Your task to perform on an android device: Is it going to rain this weekend? Image 0: 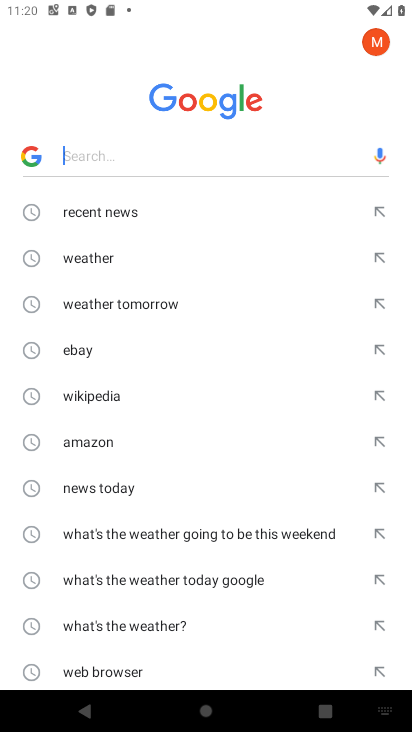
Step 0: press home button
Your task to perform on an android device: Is it going to rain this weekend? Image 1: 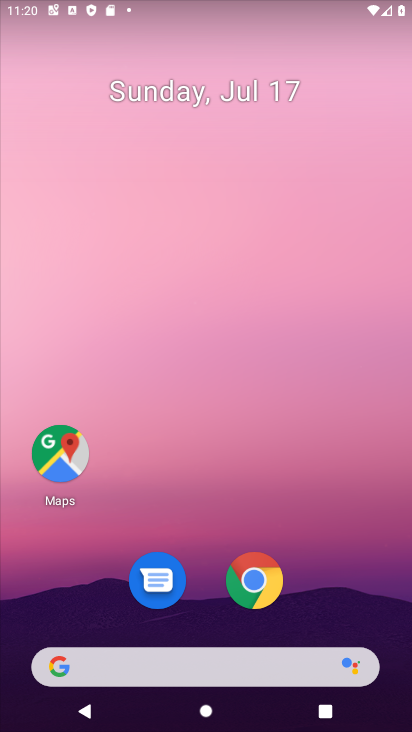
Step 1: drag from (245, 606) to (254, 232)
Your task to perform on an android device: Is it going to rain this weekend? Image 2: 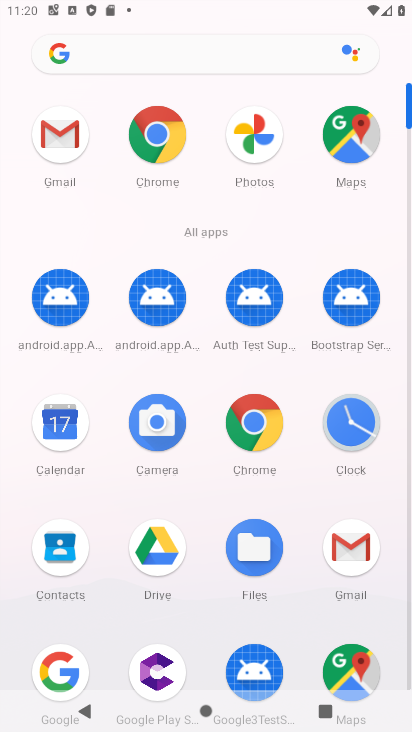
Step 2: drag from (180, 394) to (182, 150)
Your task to perform on an android device: Is it going to rain this weekend? Image 3: 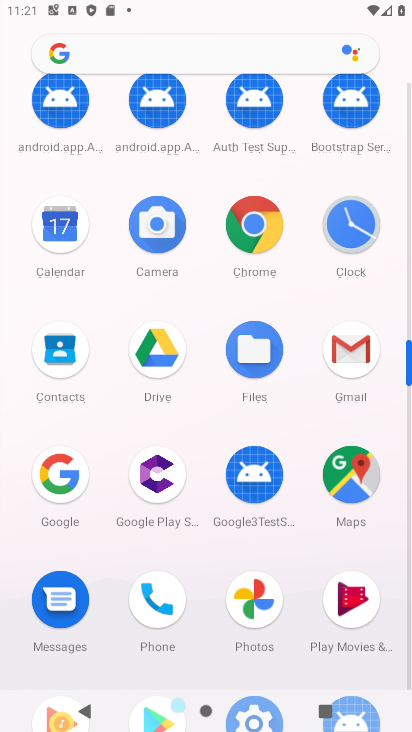
Step 3: click (59, 489)
Your task to perform on an android device: Is it going to rain this weekend? Image 4: 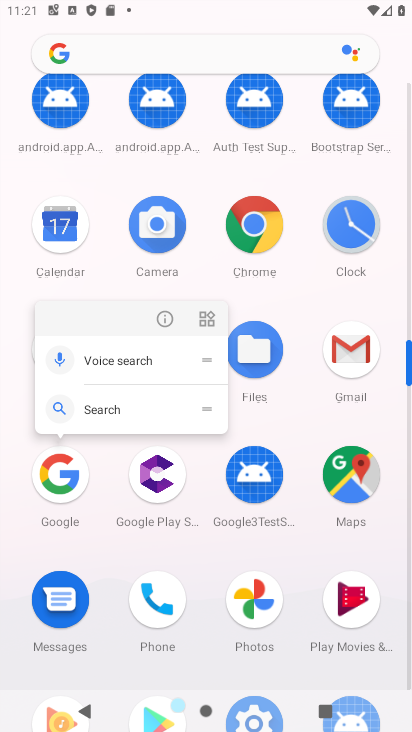
Step 4: click (62, 474)
Your task to perform on an android device: Is it going to rain this weekend? Image 5: 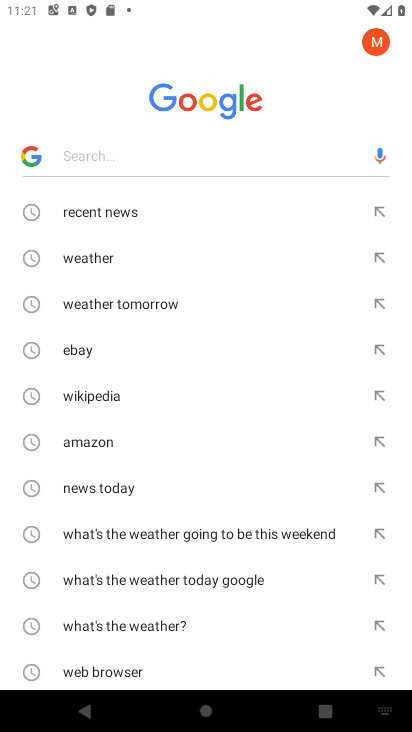
Step 5: click (145, 306)
Your task to perform on an android device: Is it going to rain this weekend? Image 6: 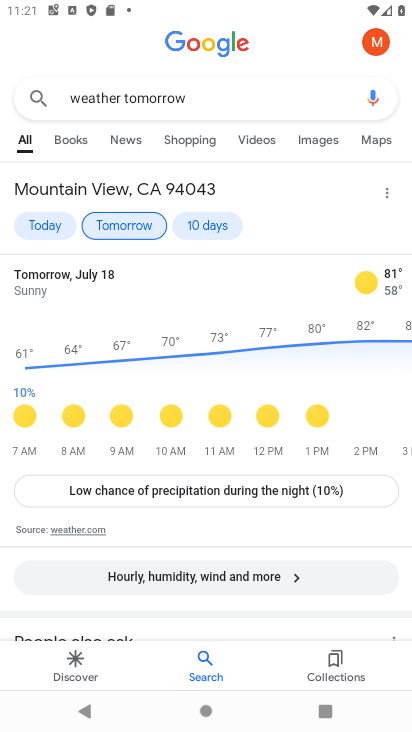
Step 6: click (208, 230)
Your task to perform on an android device: Is it going to rain this weekend? Image 7: 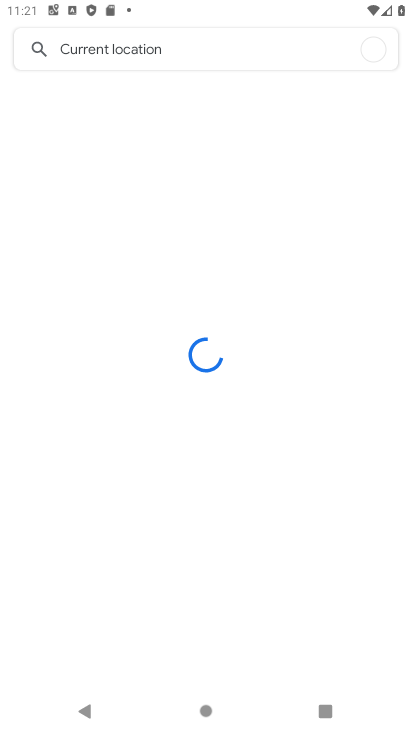
Step 7: click (208, 230)
Your task to perform on an android device: Is it going to rain this weekend? Image 8: 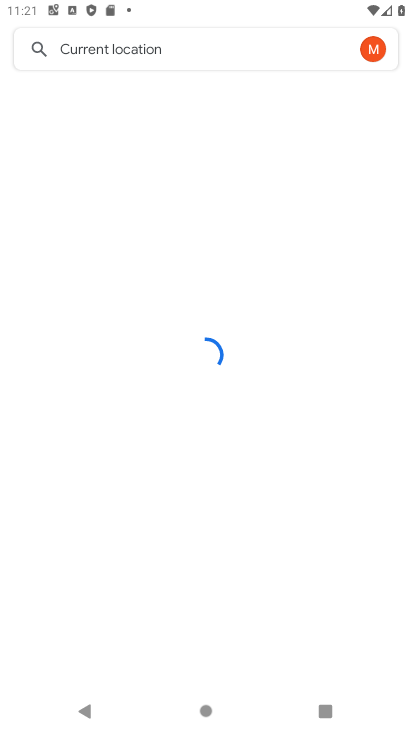
Step 8: click (208, 230)
Your task to perform on an android device: Is it going to rain this weekend? Image 9: 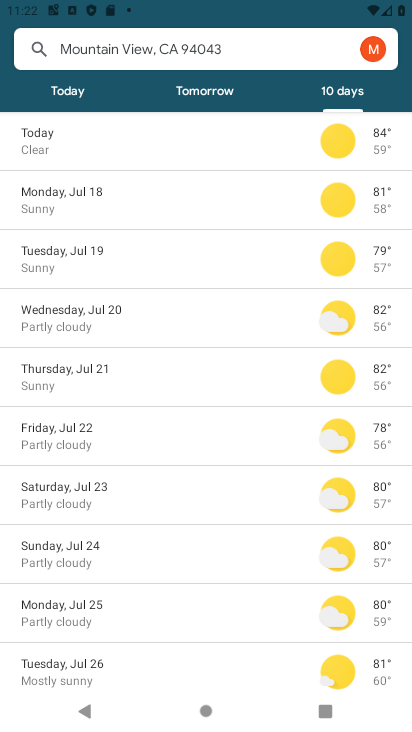
Step 9: task complete